Your task to perform on an android device: When is my next appointment? Image 0: 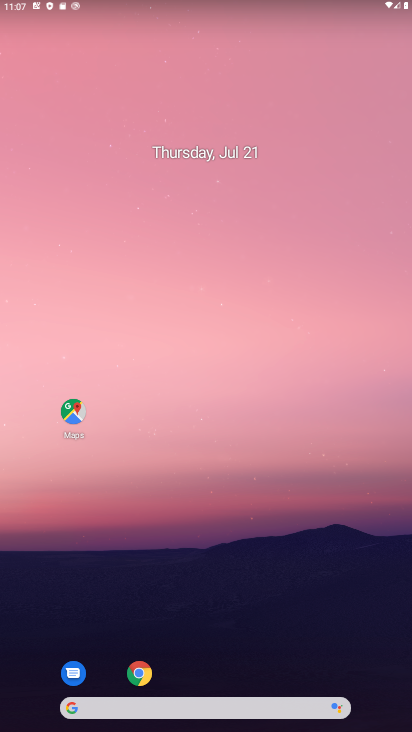
Step 0: drag from (230, 643) to (201, 212)
Your task to perform on an android device: When is my next appointment? Image 1: 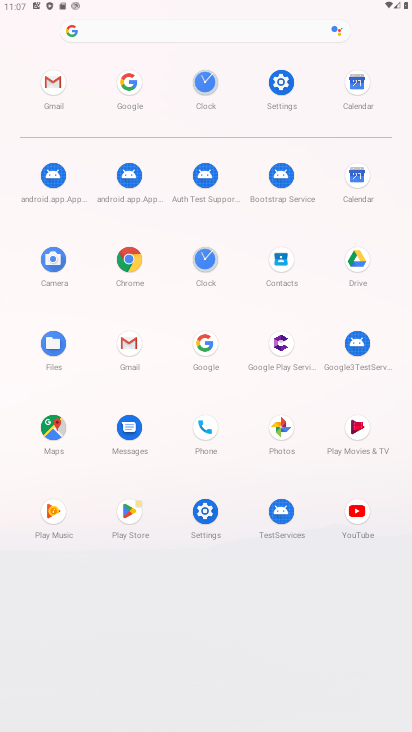
Step 1: click (351, 87)
Your task to perform on an android device: When is my next appointment? Image 2: 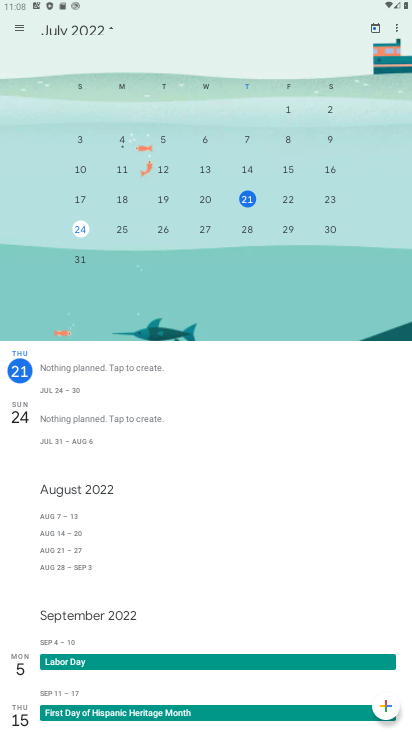
Step 2: task complete